Your task to perform on an android device: toggle show notifications on the lock screen Image 0: 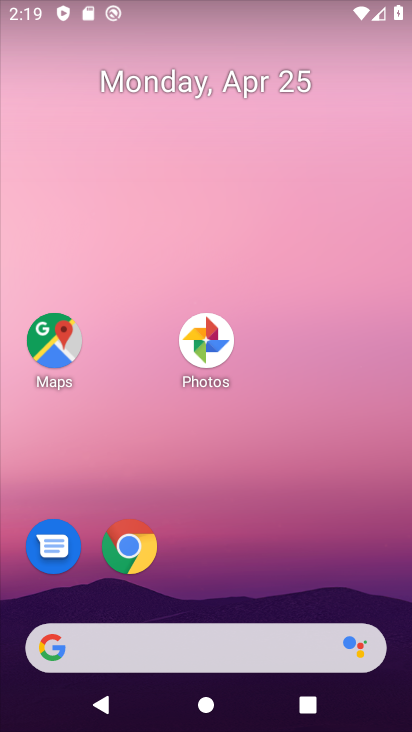
Step 0: drag from (302, 598) to (323, 204)
Your task to perform on an android device: toggle show notifications on the lock screen Image 1: 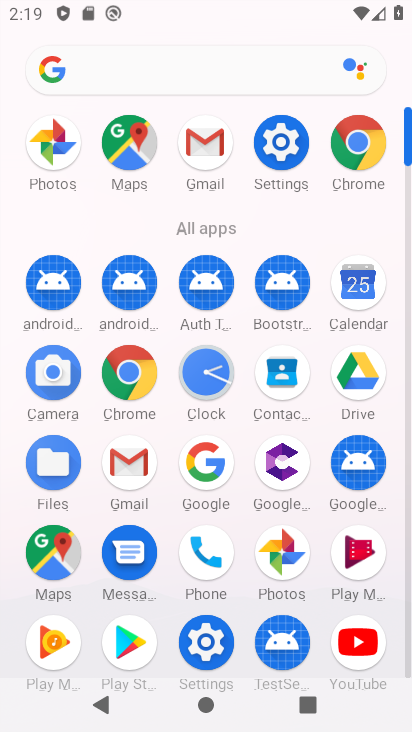
Step 1: click (272, 156)
Your task to perform on an android device: toggle show notifications on the lock screen Image 2: 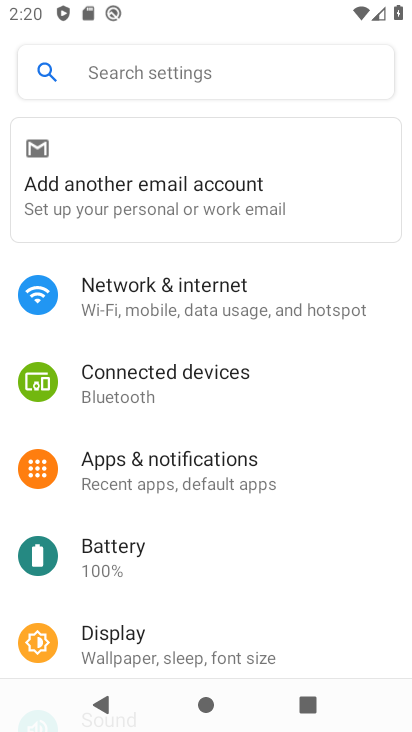
Step 2: click (189, 469)
Your task to perform on an android device: toggle show notifications on the lock screen Image 3: 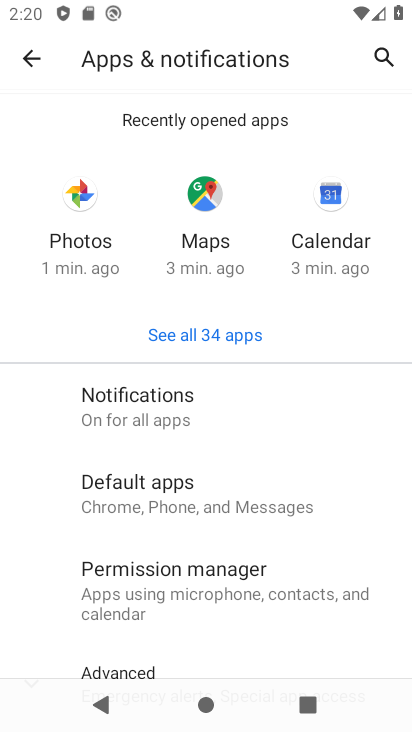
Step 3: drag from (237, 569) to (251, 321)
Your task to perform on an android device: toggle show notifications on the lock screen Image 4: 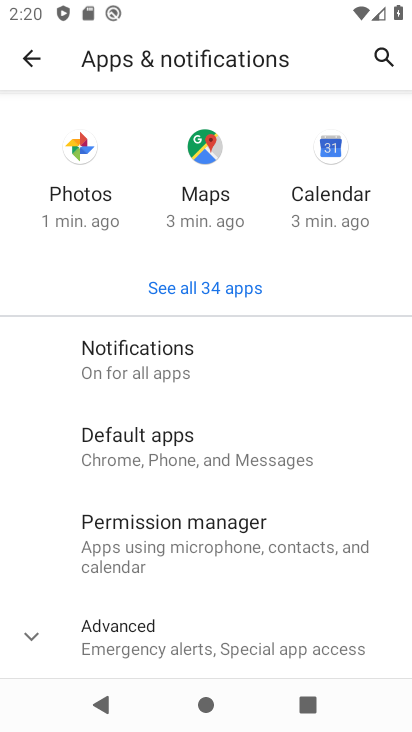
Step 4: click (180, 349)
Your task to perform on an android device: toggle show notifications on the lock screen Image 5: 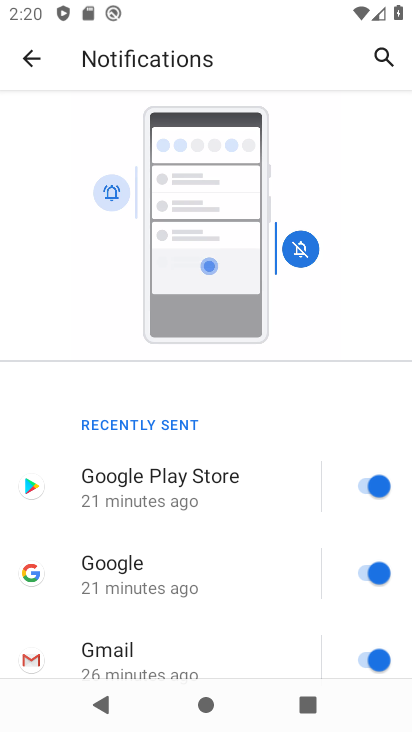
Step 5: drag from (200, 609) to (295, 166)
Your task to perform on an android device: toggle show notifications on the lock screen Image 6: 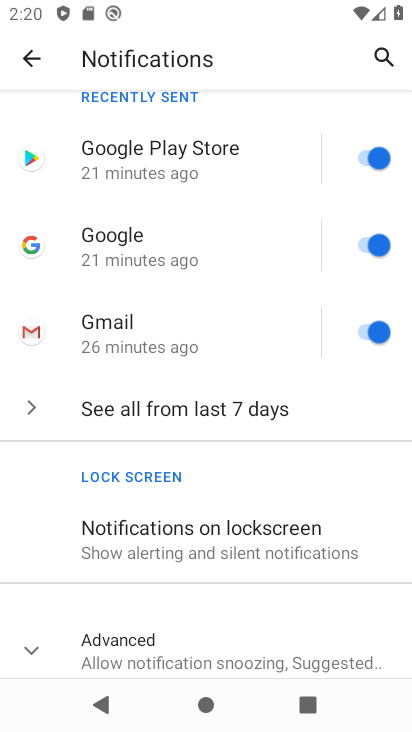
Step 6: drag from (203, 588) to (268, 170)
Your task to perform on an android device: toggle show notifications on the lock screen Image 7: 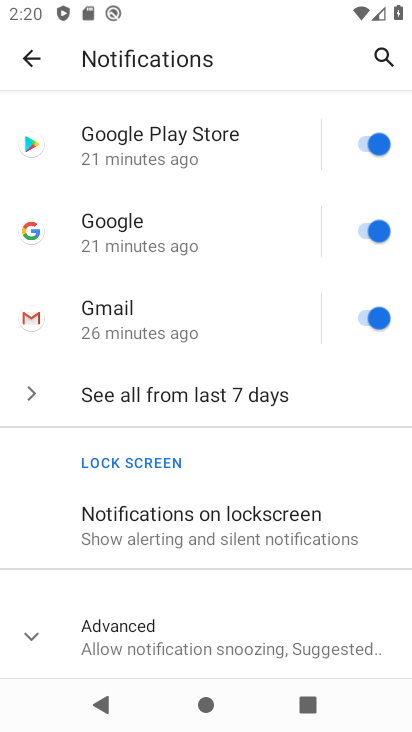
Step 7: click (166, 533)
Your task to perform on an android device: toggle show notifications on the lock screen Image 8: 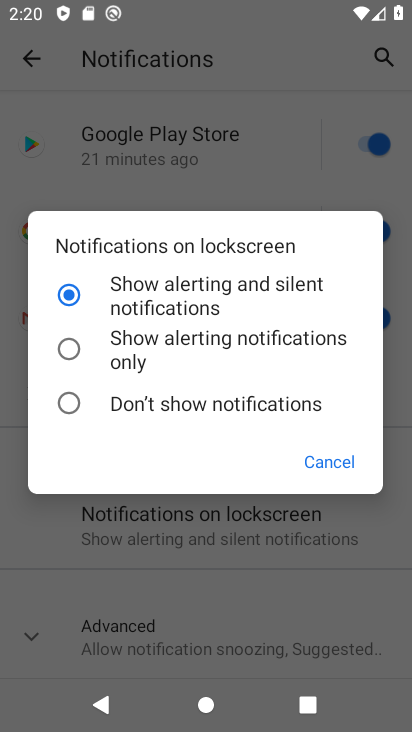
Step 8: click (107, 356)
Your task to perform on an android device: toggle show notifications on the lock screen Image 9: 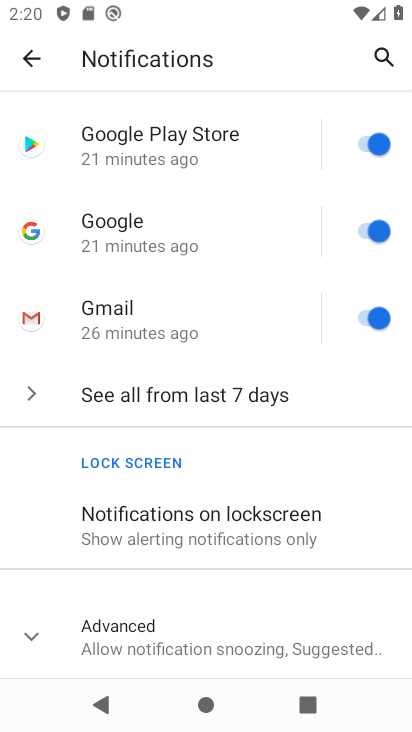
Step 9: task complete